Your task to perform on an android device: turn off translation in the chrome app Image 0: 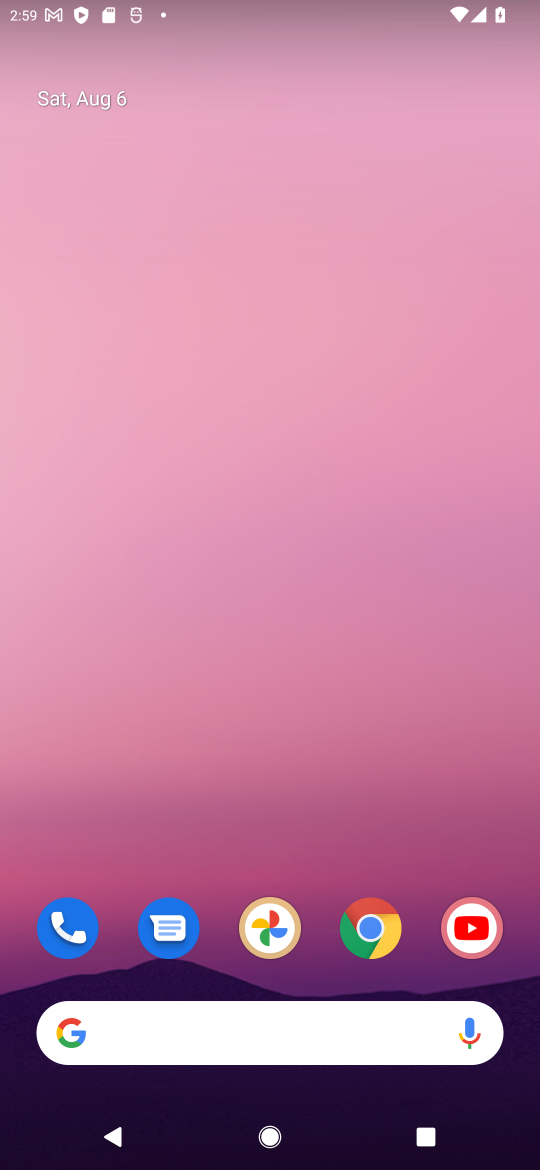
Step 0: drag from (334, 802) to (363, 387)
Your task to perform on an android device: turn off translation in the chrome app Image 1: 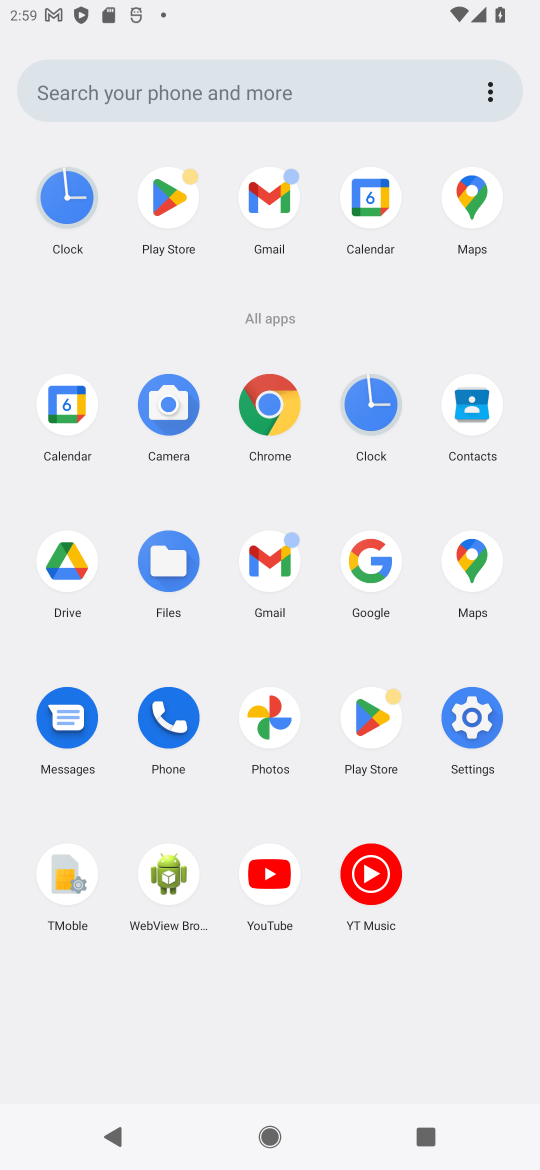
Step 1: click (263, 394)
Your task to perform on an android device: turn off translation in the chrome app Image 2: 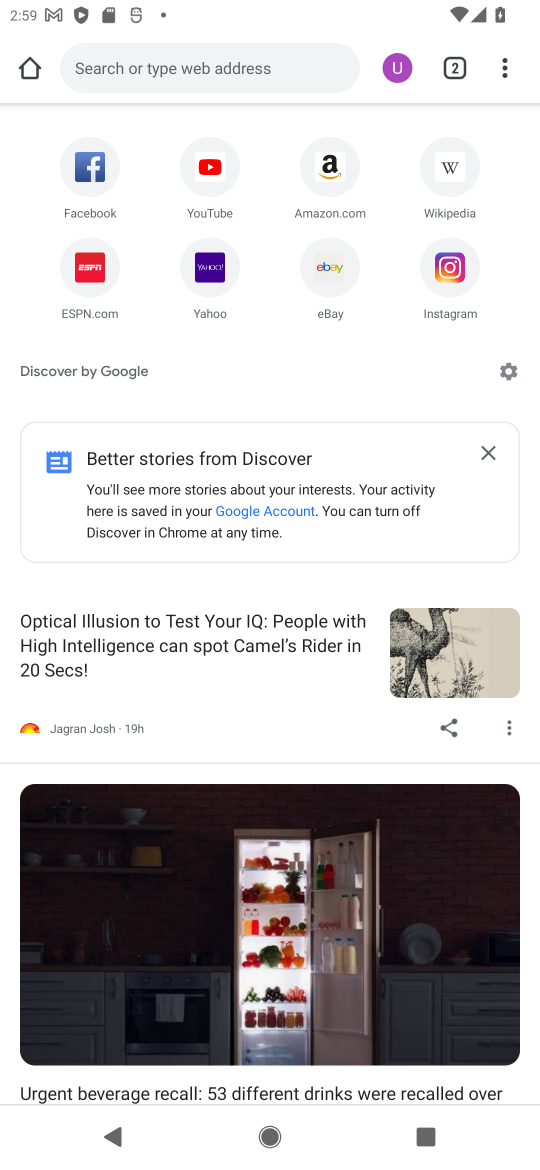
Step 2: drag from (507, 77) to (331, 593)
Your task to perform on an android device: turn off translation in the chrome app Image 3: 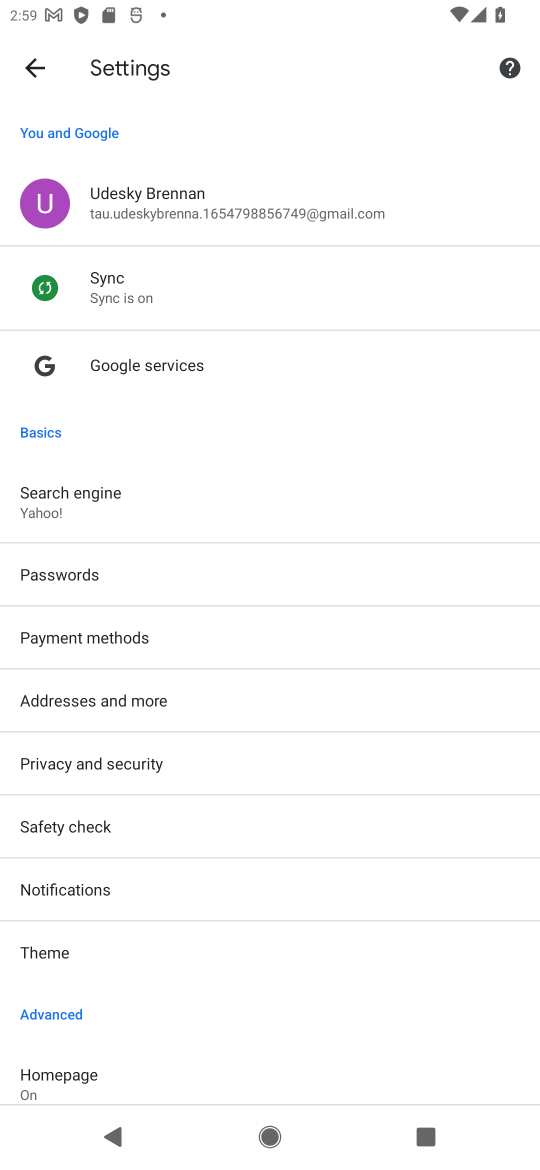
Step 3: drag from (214, 1020) to (416, 295)
Your task to perform on an android device: turn off translation in the chrome app Image 4: 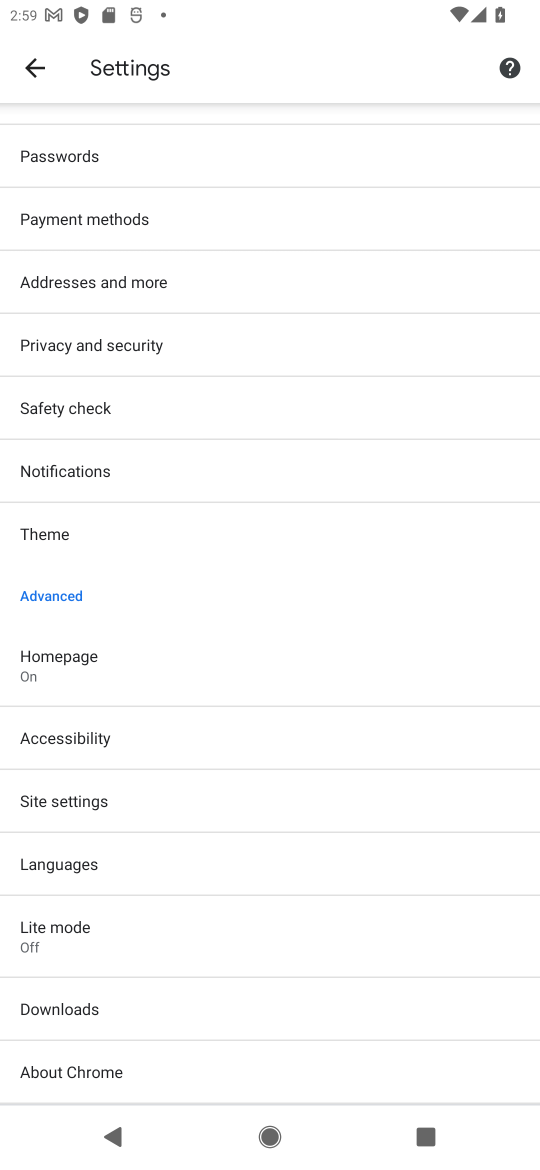
Step 4: click (142, 853)
Your task to perform on an android device: turn off translation in the chrome app Image 5: 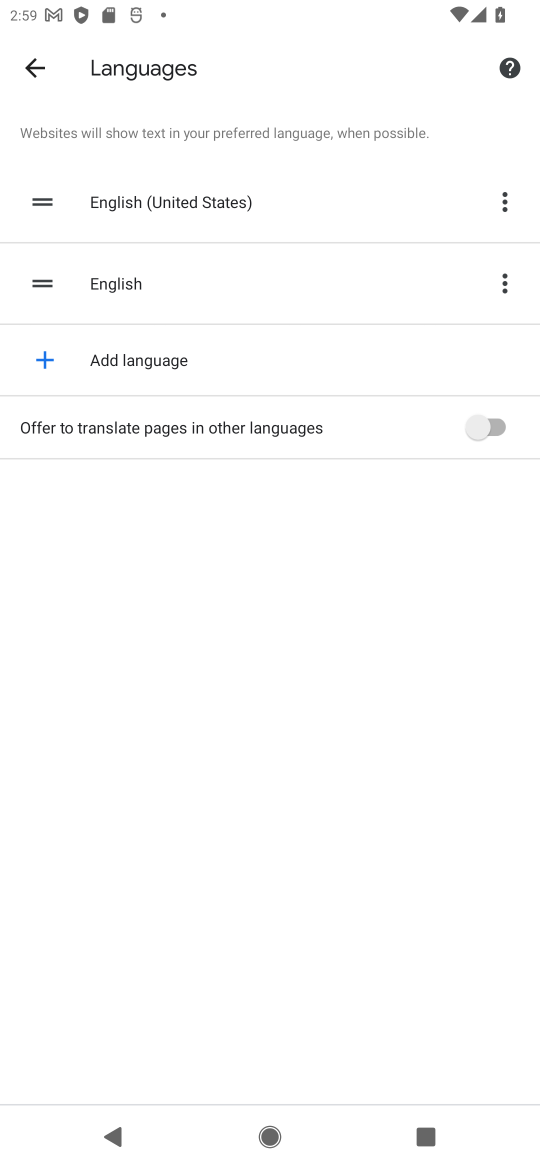
Step 5: task complete